Your task to perform on an android device: Open privacy settings Image 0: 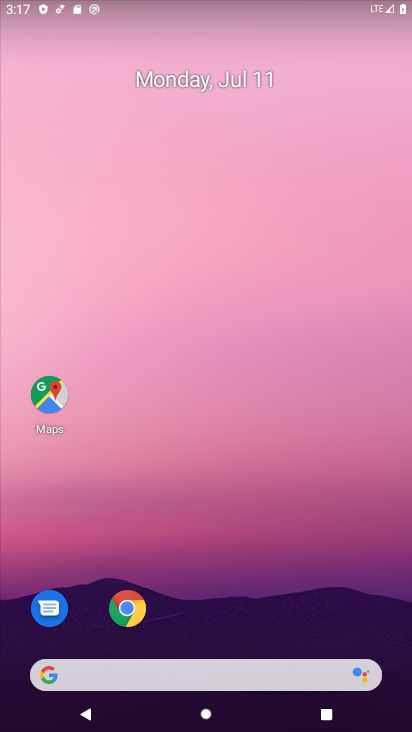
Step 0: drag from (200, 623) to (311, 188)
Your task to perform on an android device: Open privacy settings Image 1: 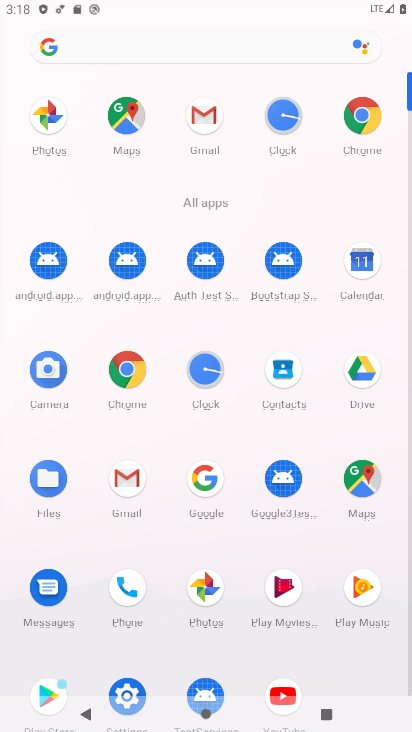
Step 1: click (126, 685)
Your task to perform on an android device: Open privacy settings Image 2: 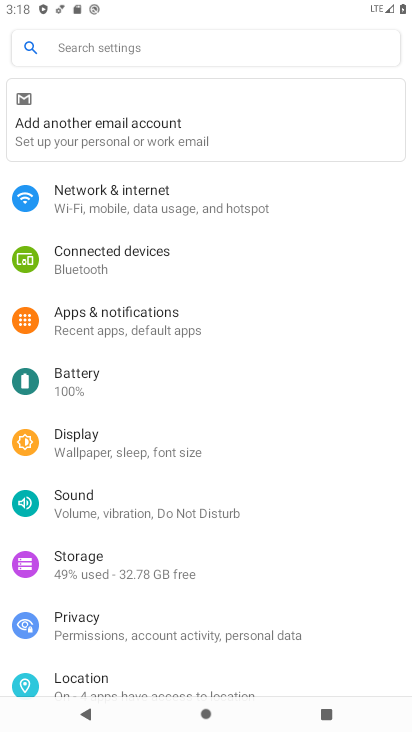
Step 2: click (198, 618)
Your task to perform on an android device: Open privacy settings Image 3: 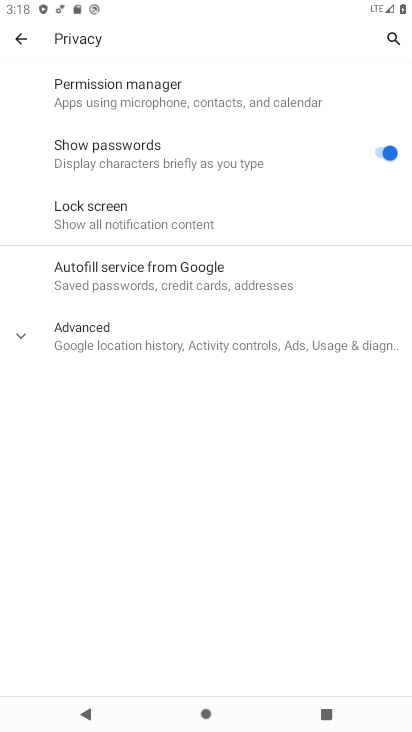
Step 3: task complete